Your task to perform on an android device: change the clock style Image 0: 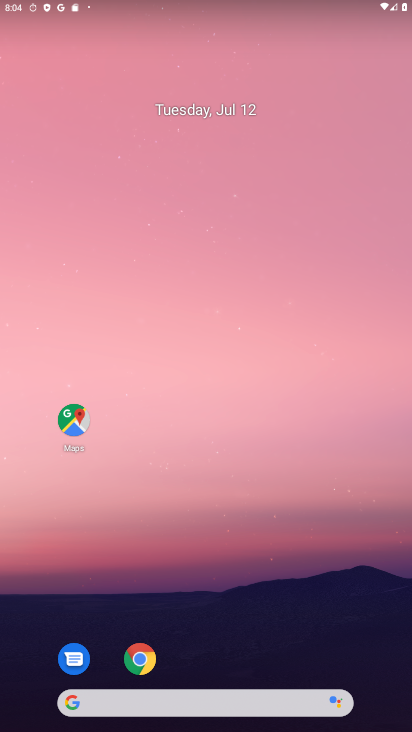
Step 0: drag from (232, 717) to (122, 28)
Your task to perform on an android device: change the clock style Image 1: 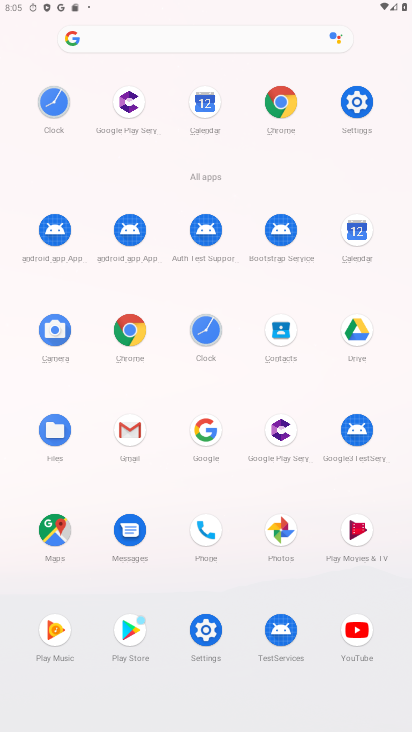
Step 1: click (210, 329)
Your task to perform on an android device: change the clock style Image 2: 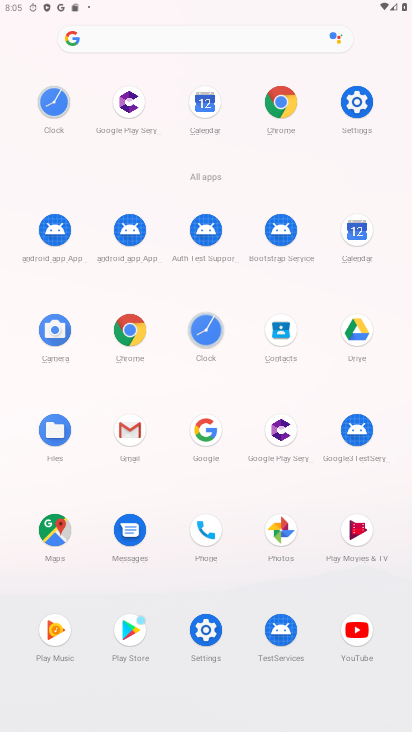
Step 2: click (210, 329)
Your task to perform on an android device: change the clock style Image 3: 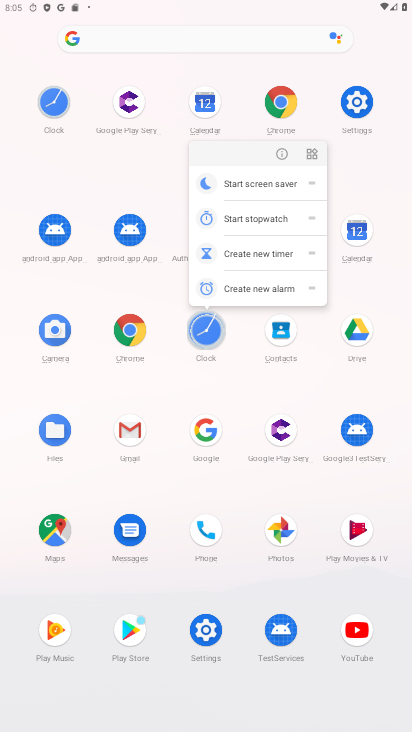
Step 3: click (210, 329)
Your task to perform on an android device: change the clock style Image 4: 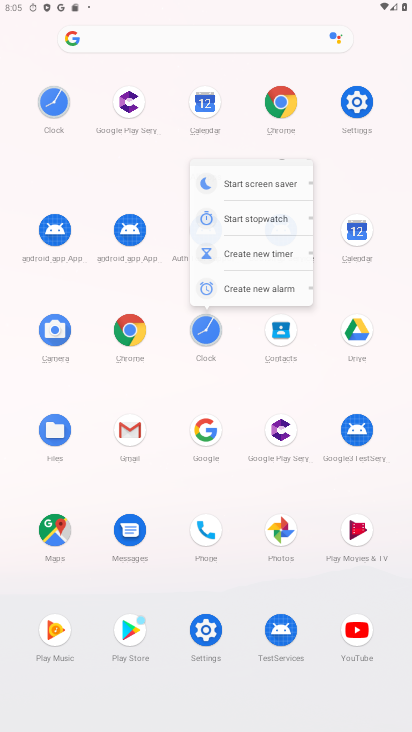
Step 4: click (209, 329)
Your task to perform on an android device: change the clock style Image 5: 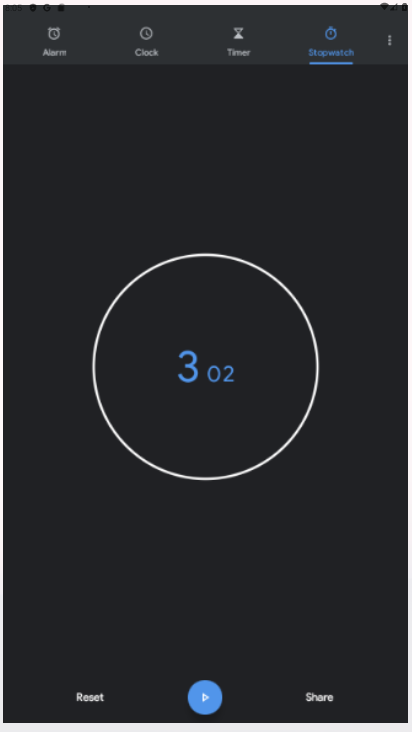
Step 5: click (209, 329)
Your task to perform on an android device: change the clock style Image 6: 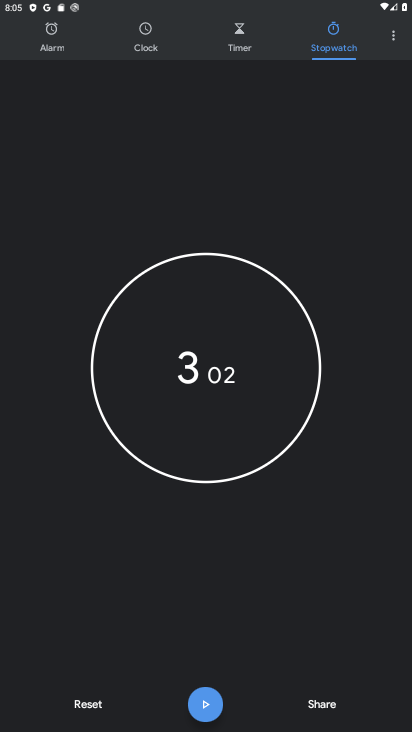
Step 6: click (208, 329)
Your task to perform on an android device: change the clock style Image 7: 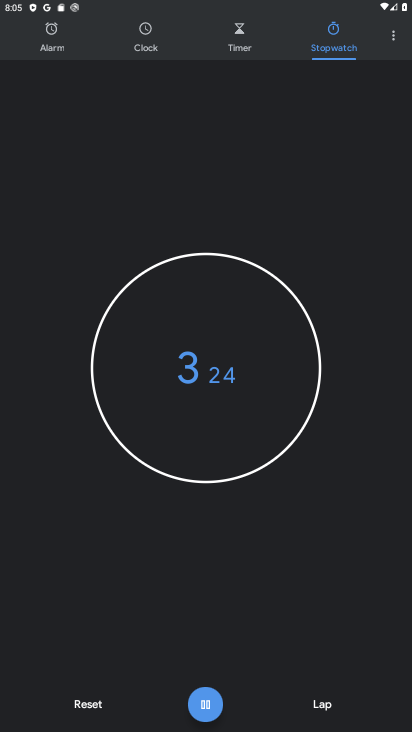
Step 7: click (208, 329)
Your task to perform on an android device: change the clock style Image 8: 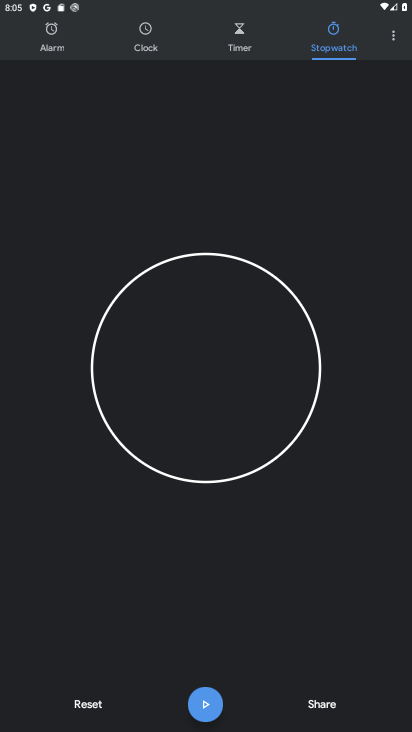
Step 8: click (208, 329)
Your task to perform on an android device: change the clock style Image 9: 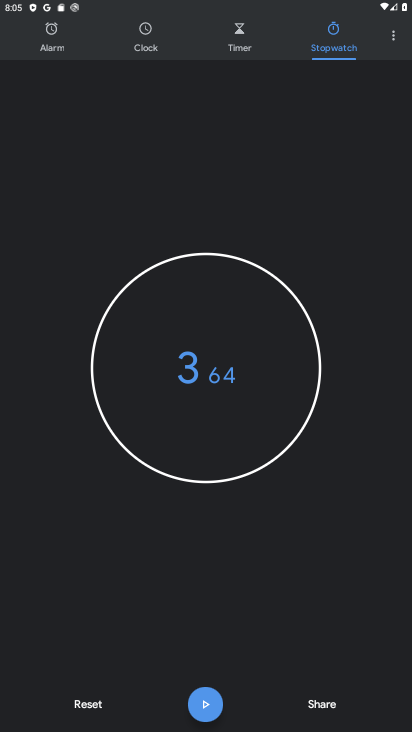
Step 9: click (392, 37)
Your task to perform on an android device: change the clock style Image 10: 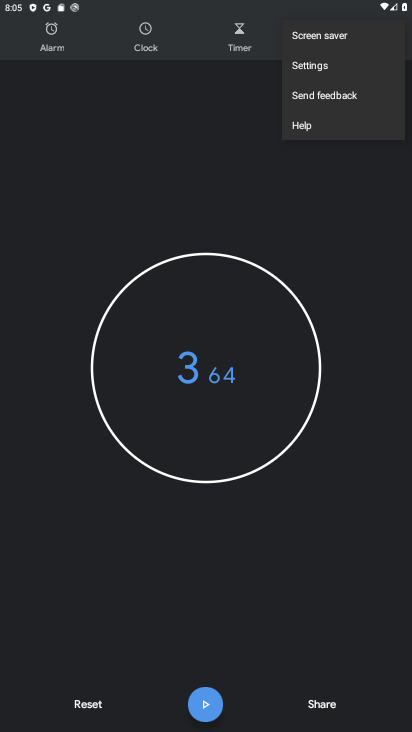
Step 10: click (319, 62)
Your task to perform on an android device: change the clock style Image 11: 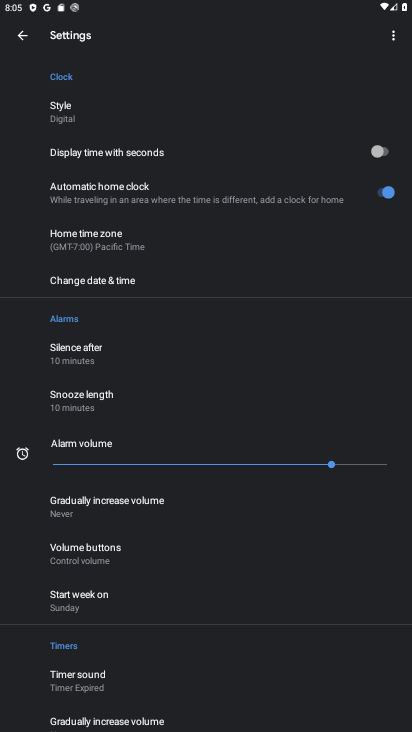
Step 11: click (69, 104)
Your task to perform on an android device: change the clock style Image 12: 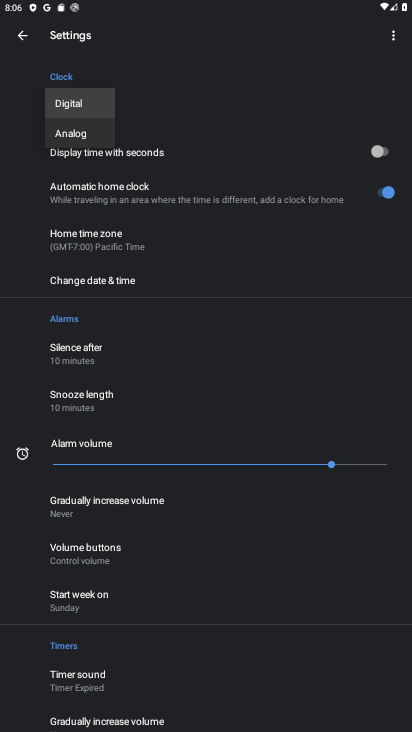
Step 12: click (78, 131)
Your task to perform on an android device: change the clock style Image 13: 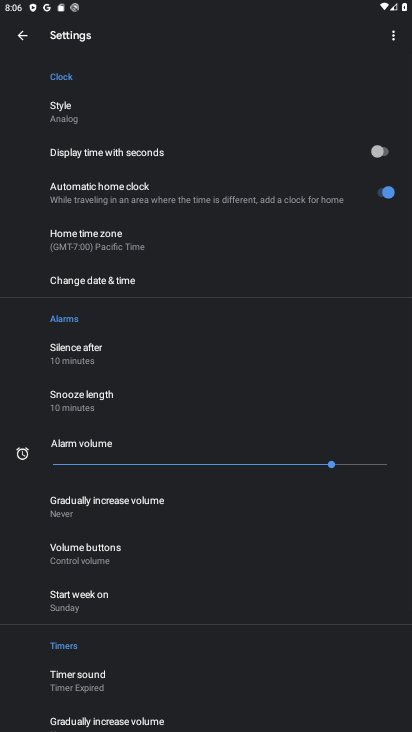
Step 13: task complete